Your task to perform on an android device: Open network settings Image 0: 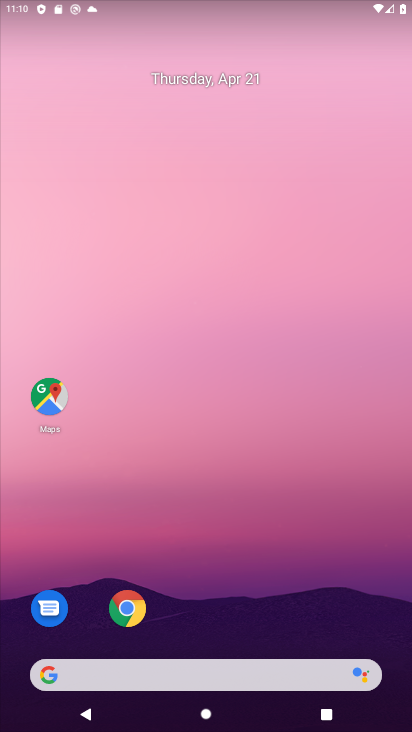
Step 0: drag from (201, 556) to (157, 48)
Your task to perform on an android device: Open network settings Image 1: 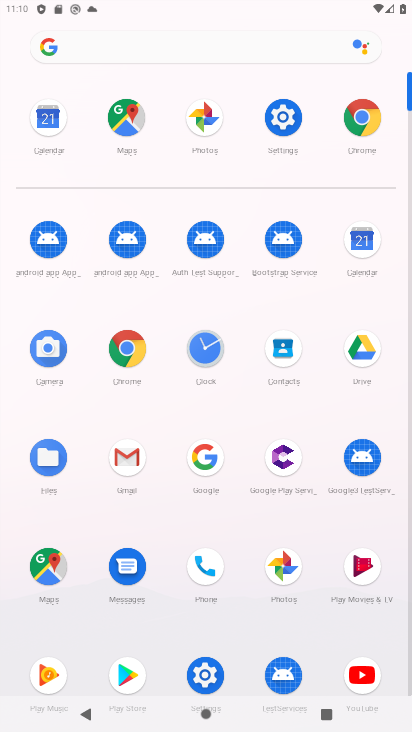
Step 1: click (285, 94)
Your task to perform on an android device: Open network settings Image 2: 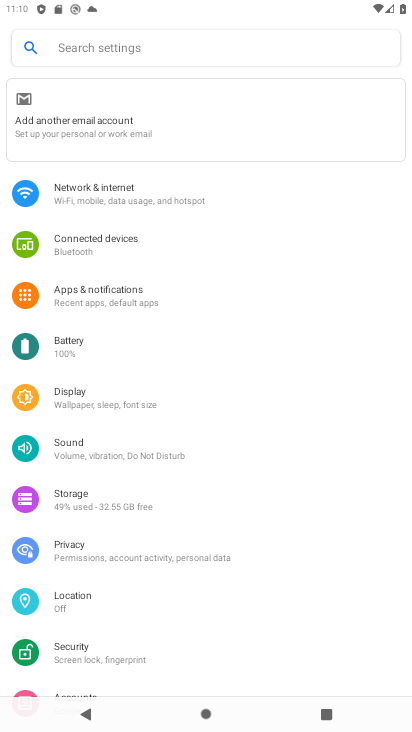
Step 2: click (111, 199)
Your task to perform on an android device: Open network settings Image 3: 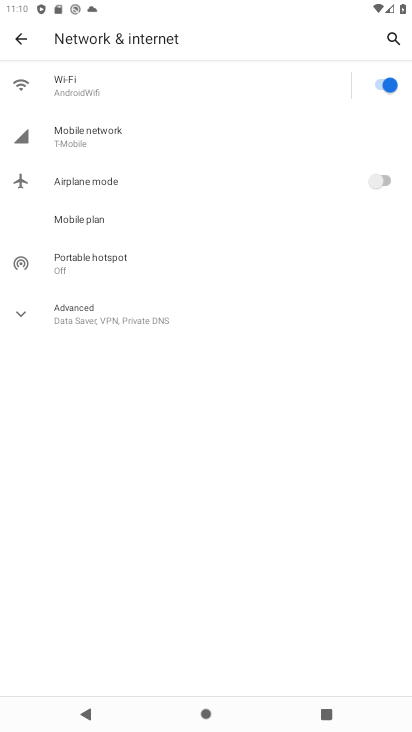
Step 3: click (104, 132)
Your task to perform on an android device: Open network settings Image 4: 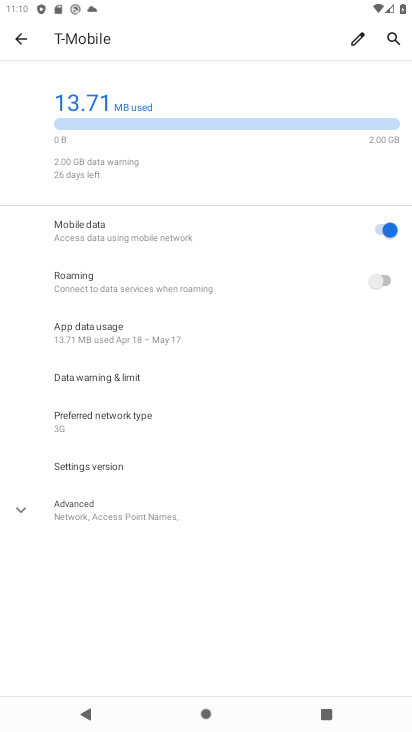
Step 4: task complete